Your task to perform on an android device: toggle notification dots Image 0: 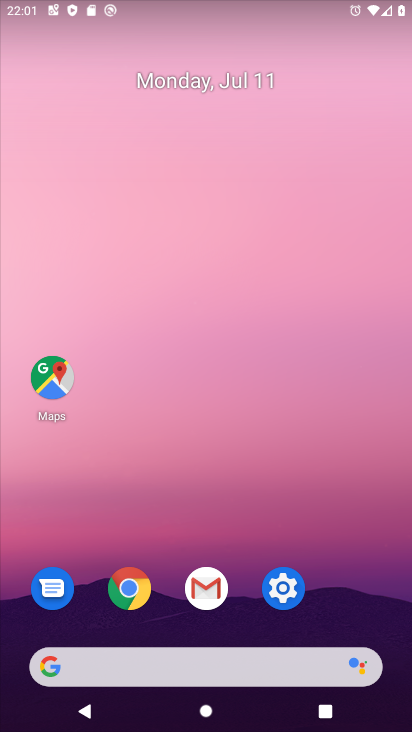
Step 0: drag from (224, 684) to (237, 219)
Your task to perform on an android device: toggle notification dots Image 1: 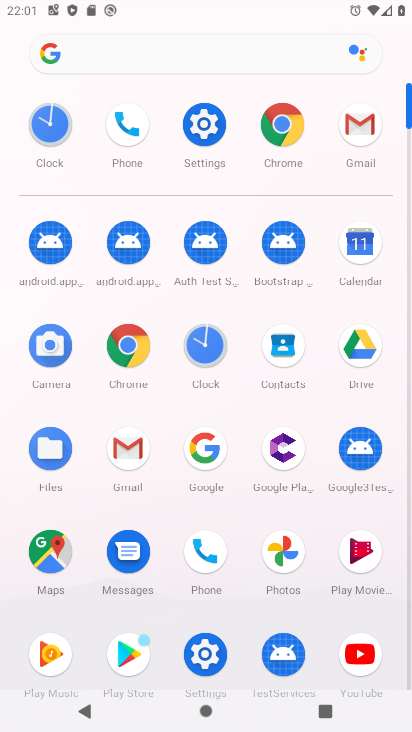
Step 1: click (204, 130)
Your task to perform on an android device: toggle notification dots Image 2: 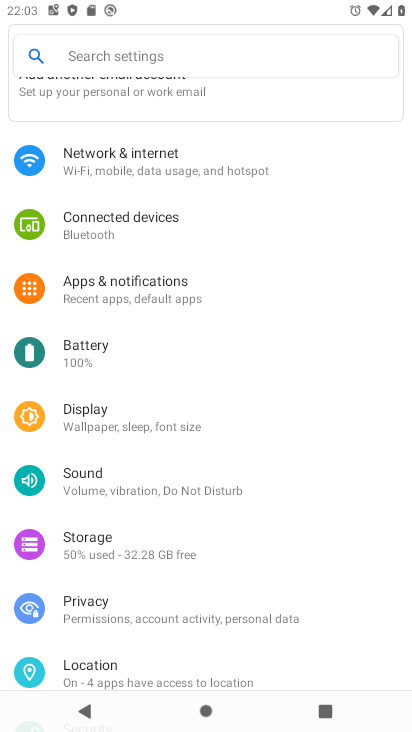
Step 2: click (137, 68)
Your task to perform on an android device: toggle notification dots Image 3: 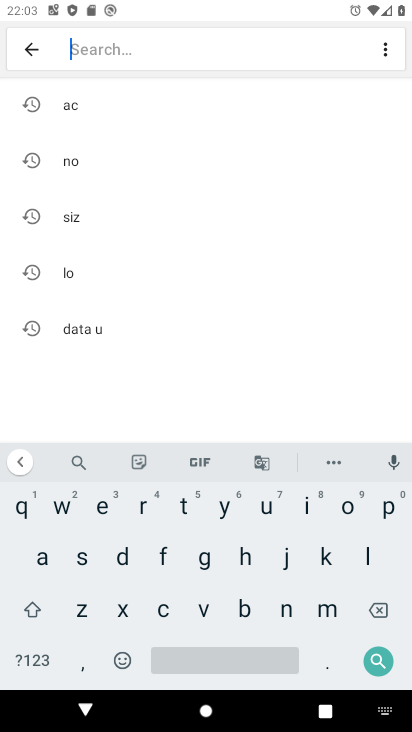
Step 3: click (128, 554)
Your task to perform on an android device: toggle notification dots Image 4: 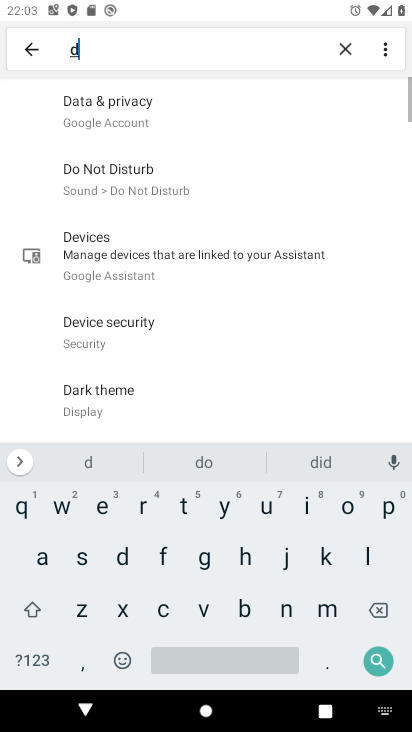
Step 4: click (340, 506)
Your task to perform on an android device: toggle notification dots Image 5: 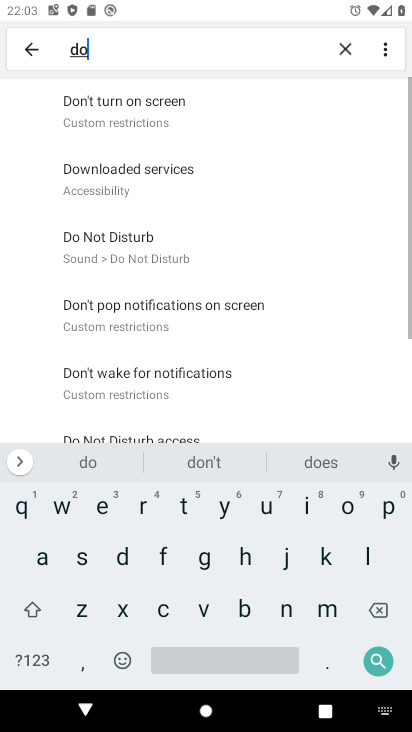
Step 5: click (179, 508)
Your task to perform on an android device: toggle notification dots Image 6: 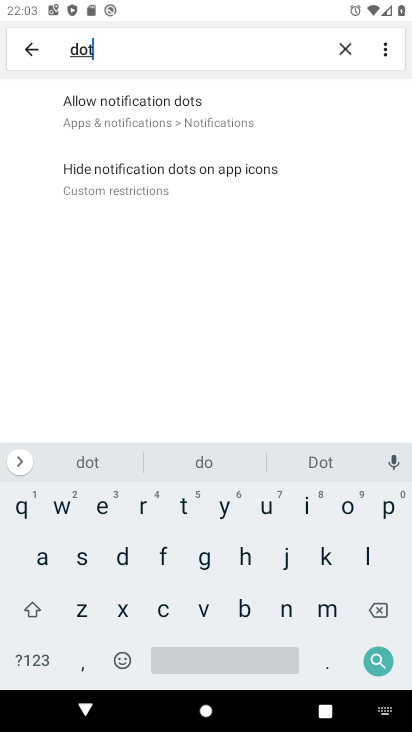
Step 6: click (126, 114)
Your task to perform on an android device: toggle notification dots Image 7: 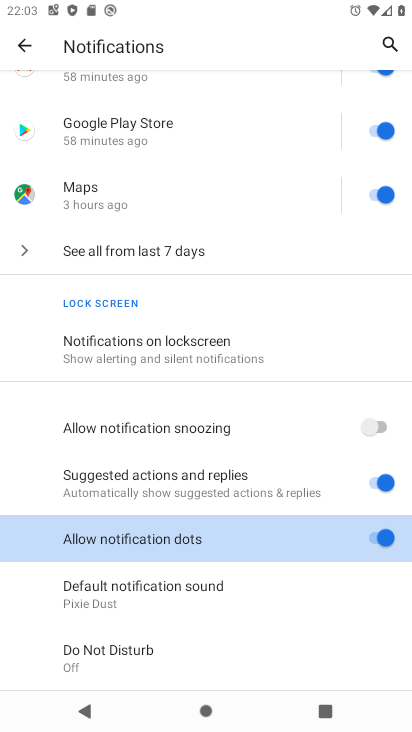
Step 7: click (116, 537)
Your task to perform on an android device: toggle notification dots Image 8: 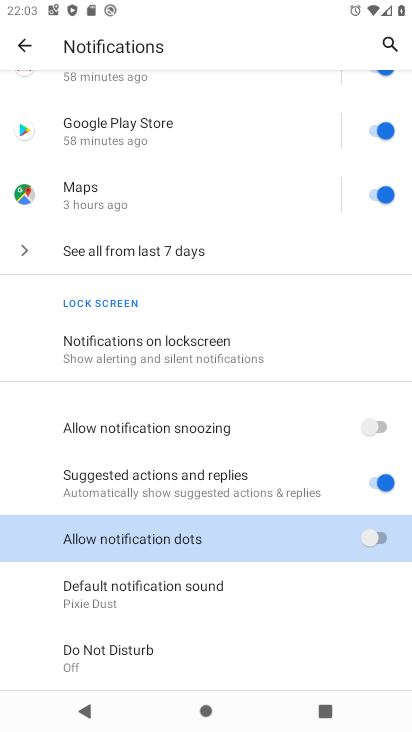
Step 8: task complete